Your task to perform on an android device: Go to wifi settings Image 0: 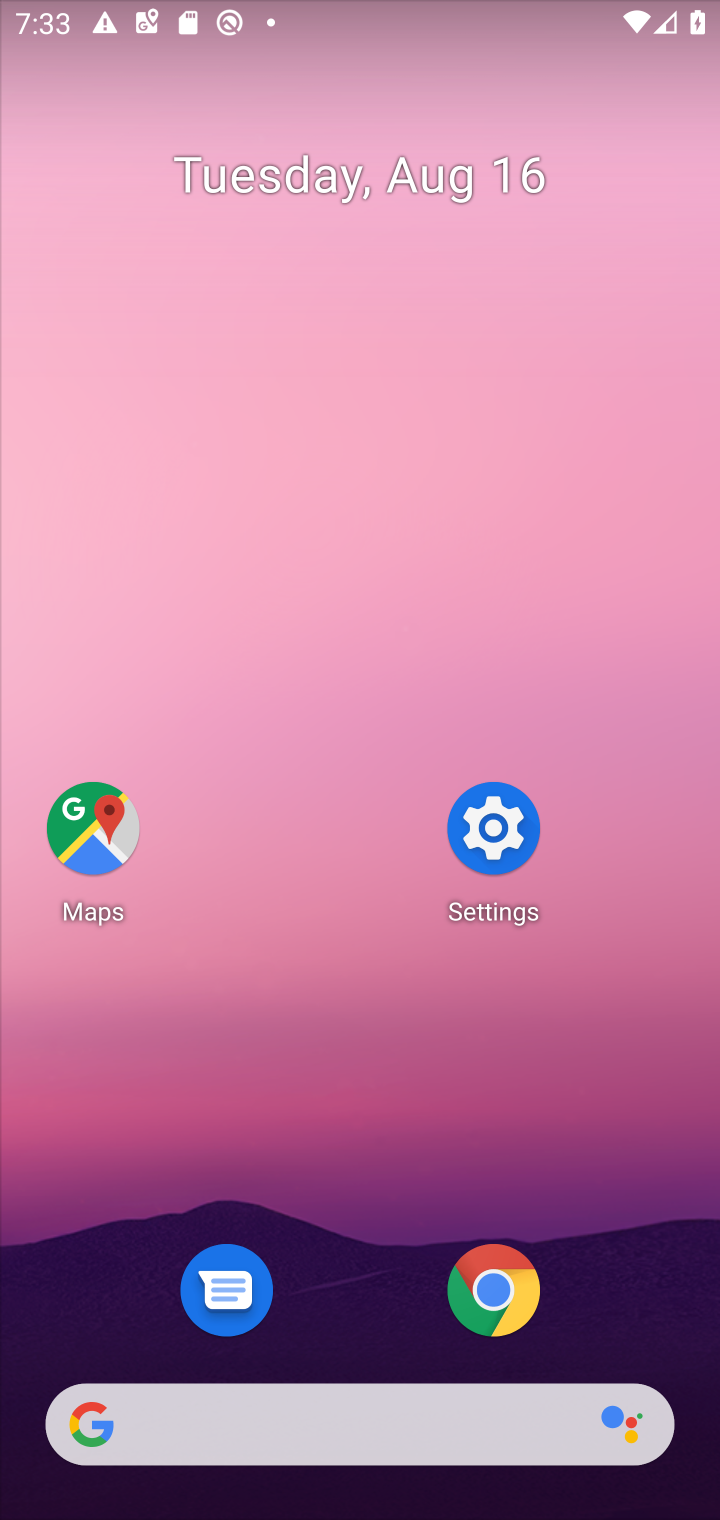
Step 0: press home button
Your task to perform on an android device: Go to wifi settings Image 1: 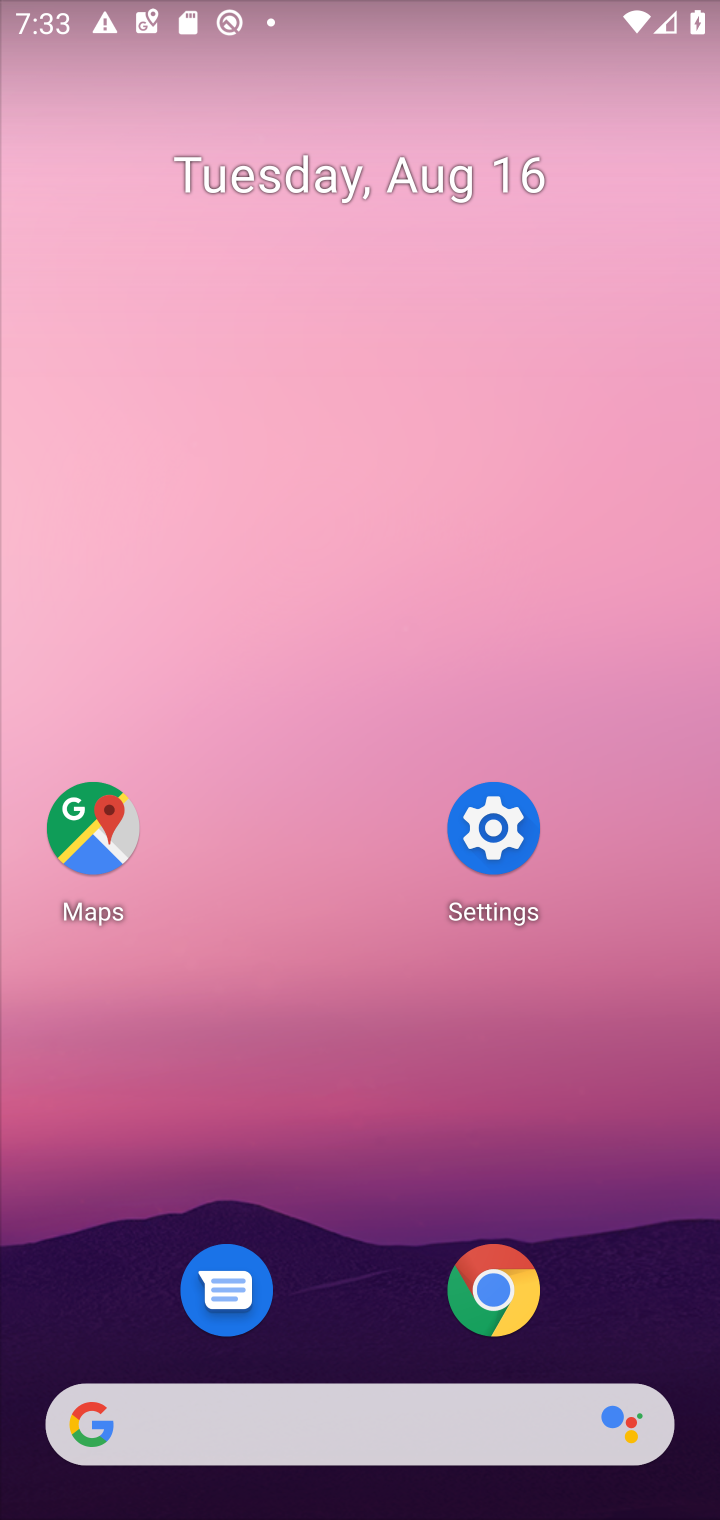
Step 1: click (477, 836)
Your task to perform on an android device: Go to wifi settings Image 2: 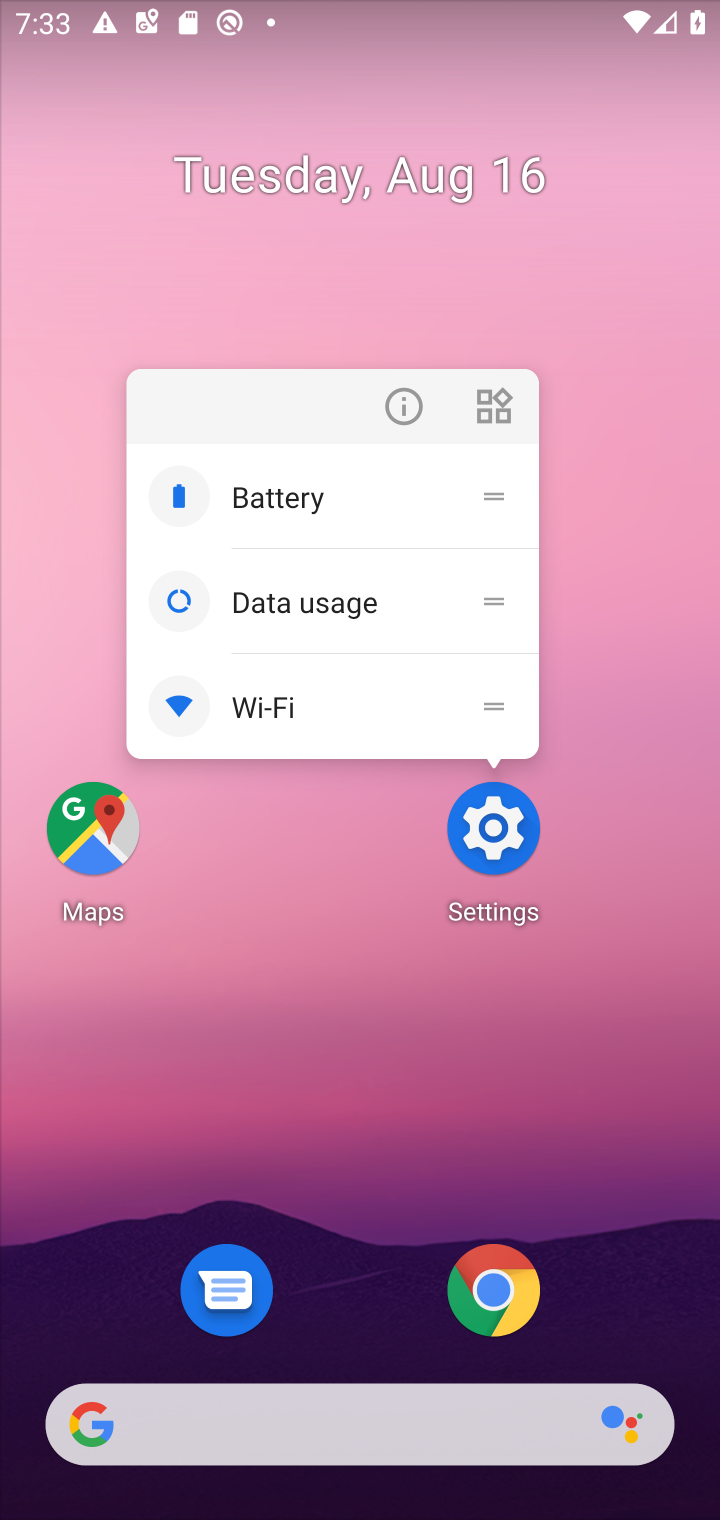
Step 2: click (496, 824)
Your task to perform on an android device: Go to wifi settings Image 3: 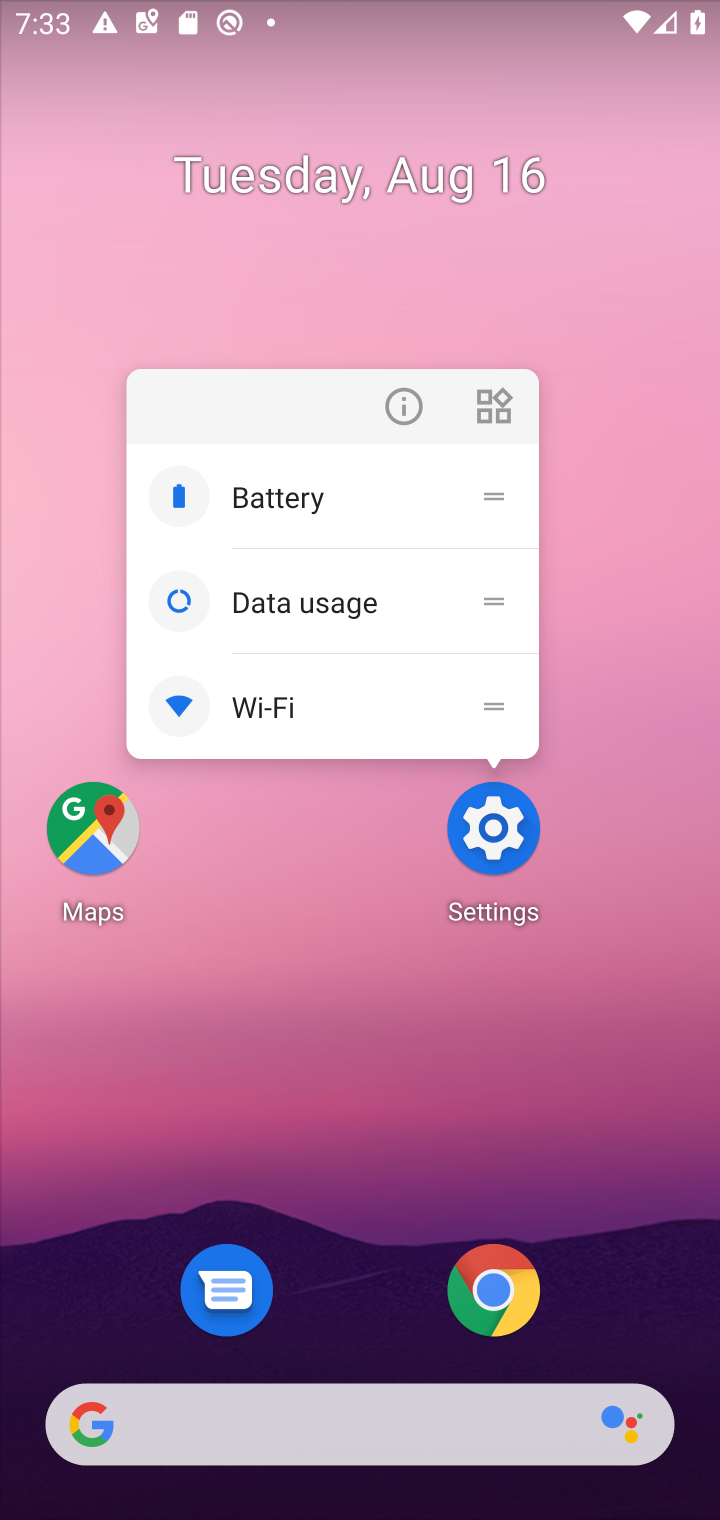
Step 3: click (498, 841)
Your task to perform on an android device: Go to wifi settings Image 4: 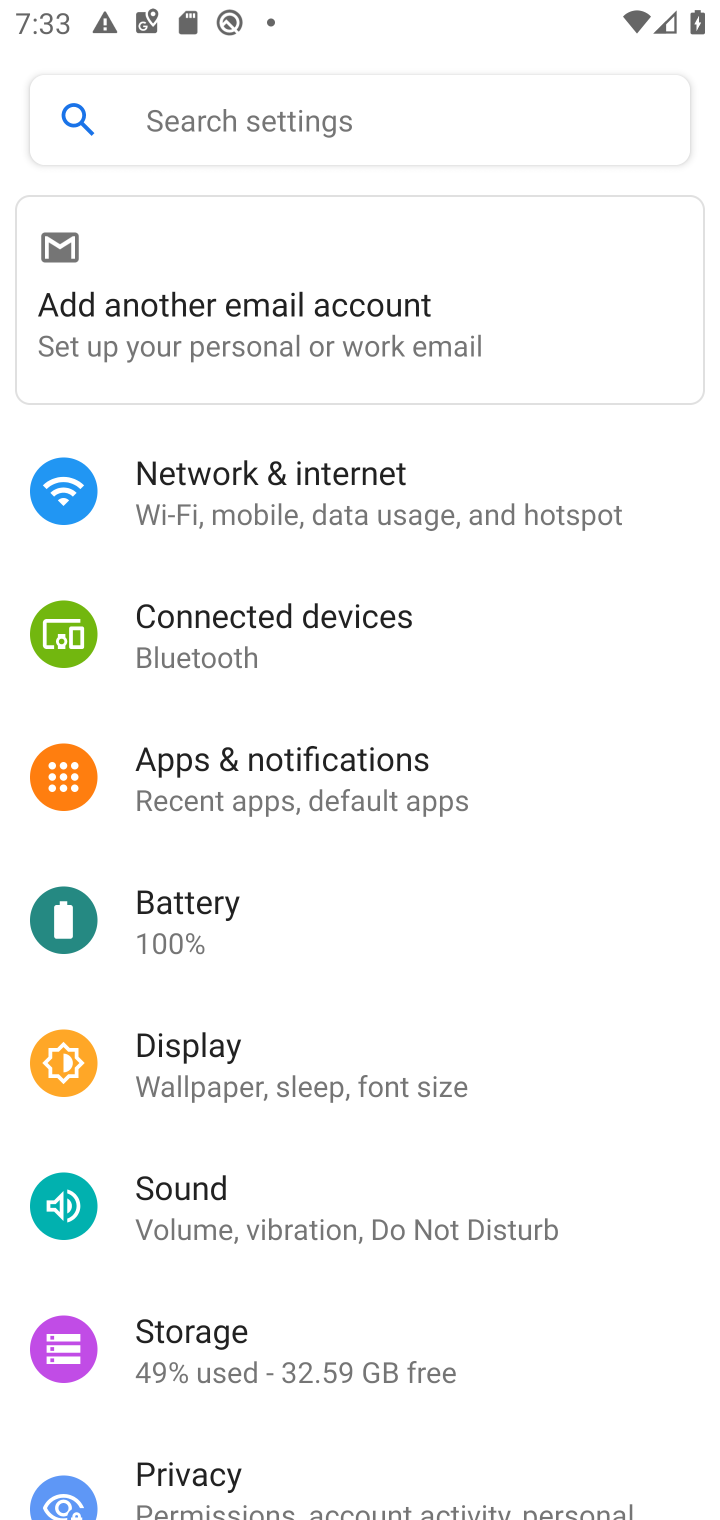
Step 4: click (264, 513)
Your task to perform on an android device: Go to wifi settings Image 5: 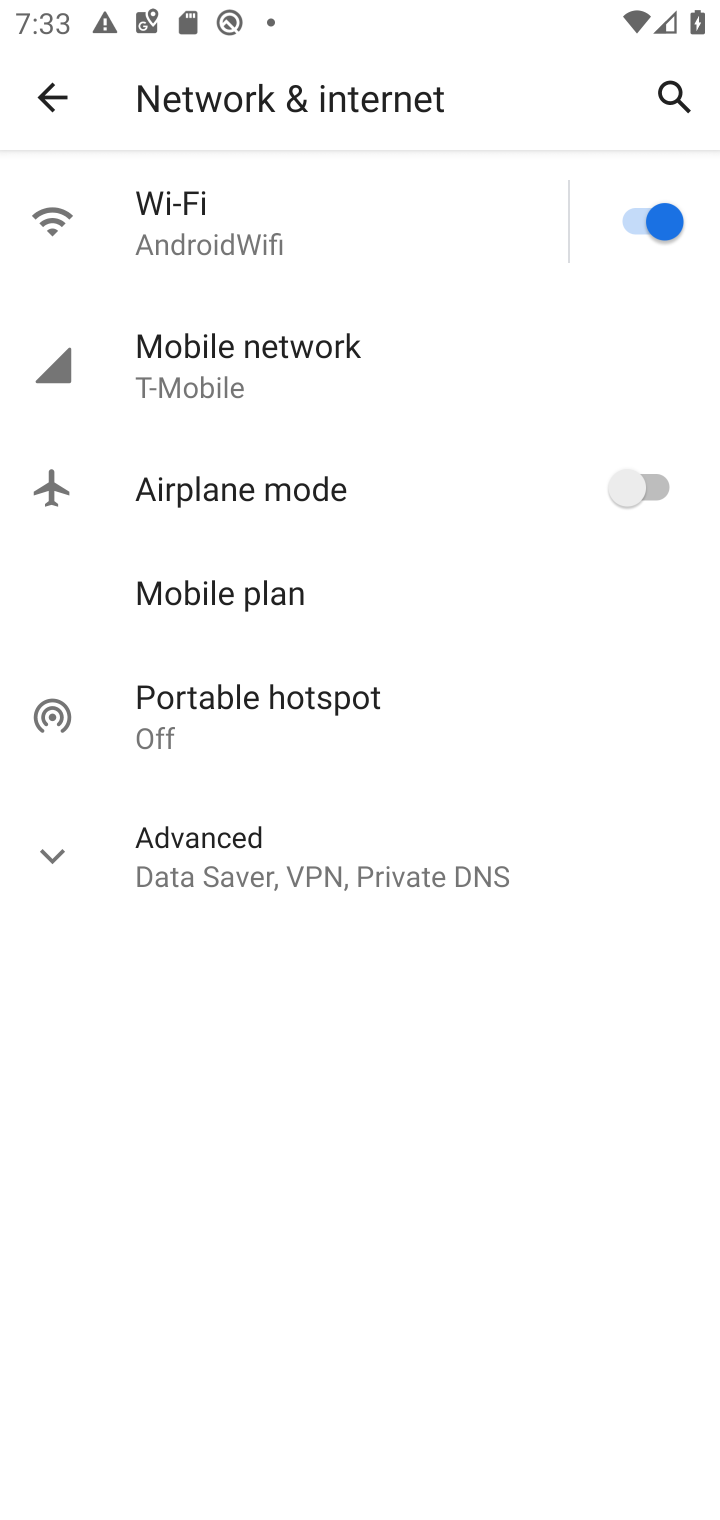
Step 5: click (157, 221)
Your task to perform on an android device: Go to wifi settings Image 6: 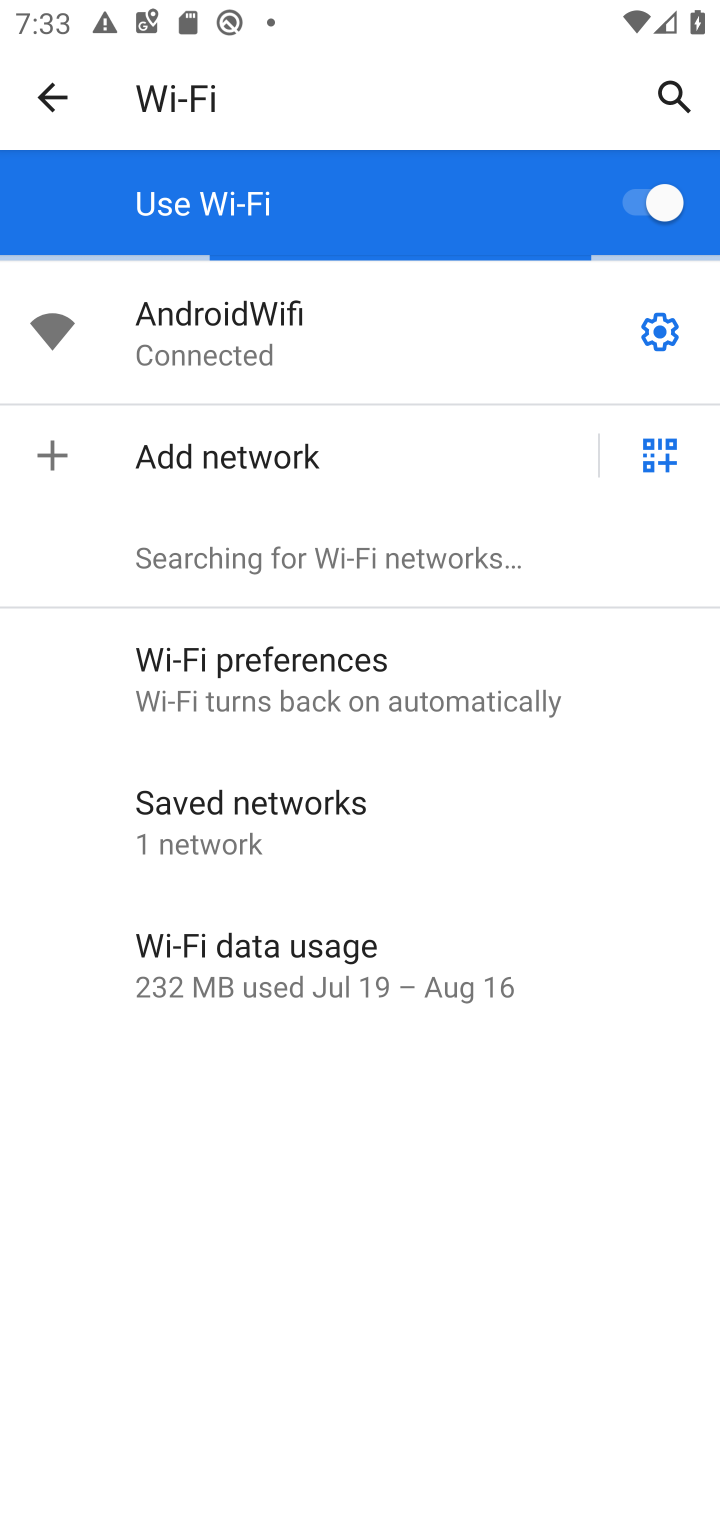
Step 6: task complete